Your task to perform on an android device: Open the web browser Image 0: 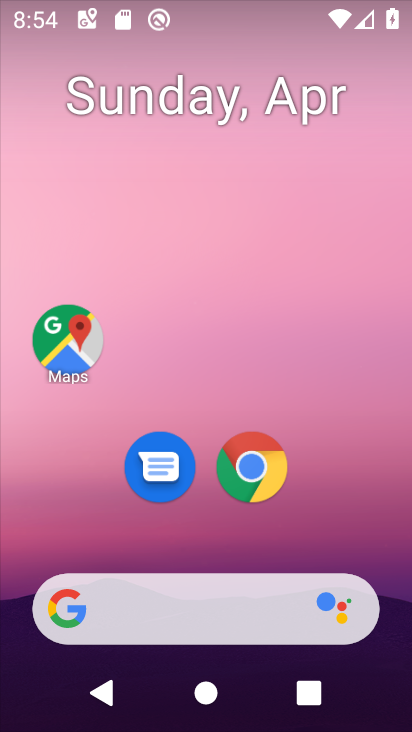
Step 0: click (239, 470)
Your task to perform on an android device: Open the web browser Image 1: 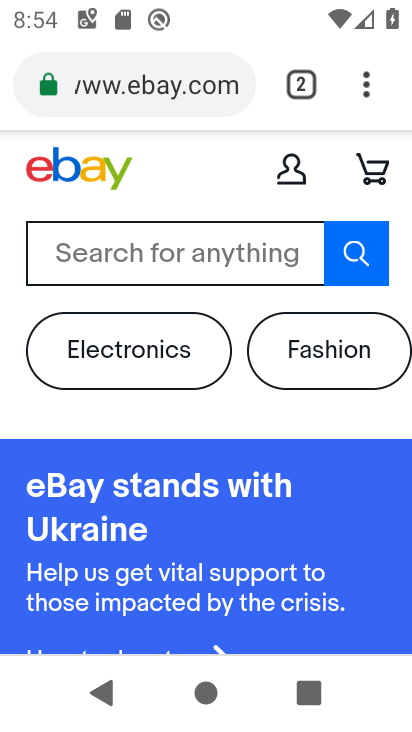
Step 1: task complete